Your task to perform on an android device: Go to location settings Image 0: 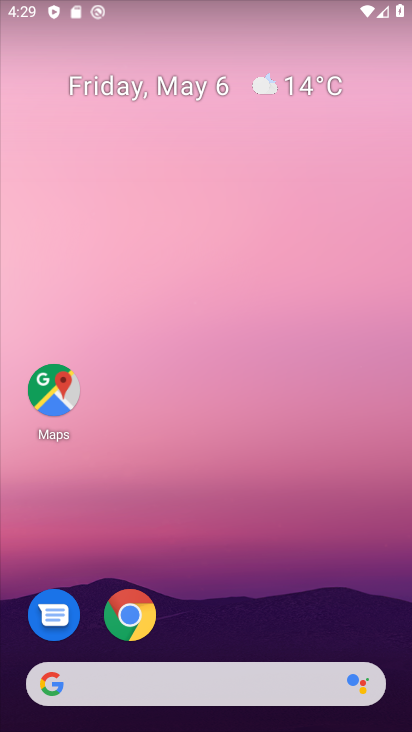
Step 0: drag from (249, 628) to (256, 134)
Your task to perform on an android device: Go to location settings Image 1: 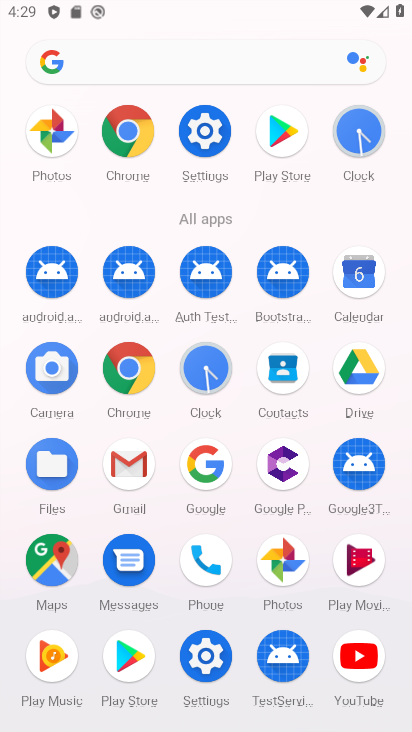
Step 1: click (199, 152)
Your task to perform on an android device: Go to location settings Image 2: 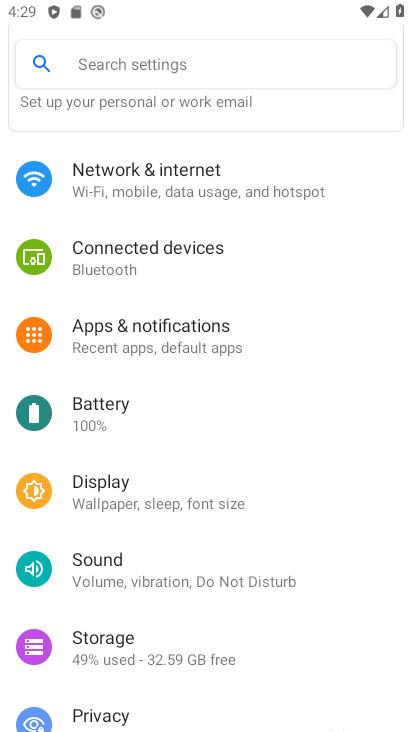
Step 2: drag from (212, 700) to (229, 337)
Your task to perform on an android device: Go to location settings Image 3: 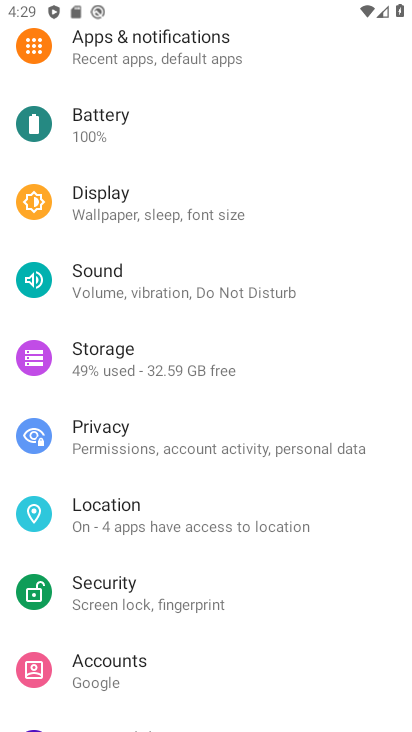
Step 3: drag from (219, 557) to (223, 355)
Your task to perform on an android device: Go to location settings Image 4: 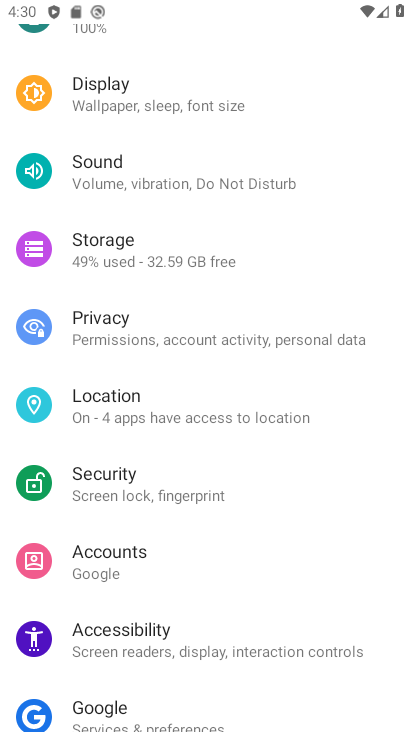
Step 4: click (133, 433)
Your task to perform on an android device: Go to location settings Image 5: 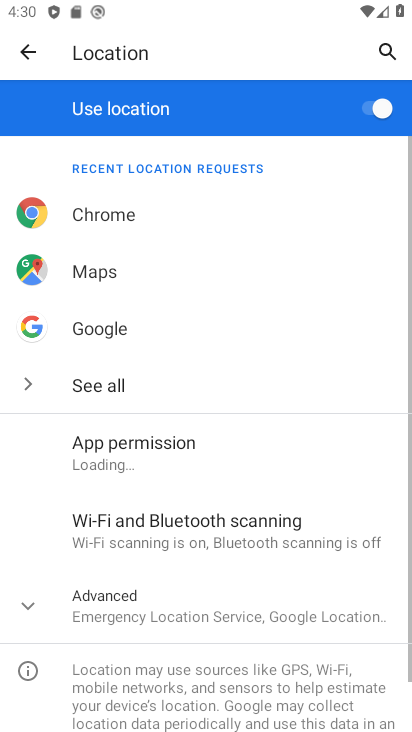
Step 5: task complete